Your task to perform on an android device: Open privacy settings Image 0: 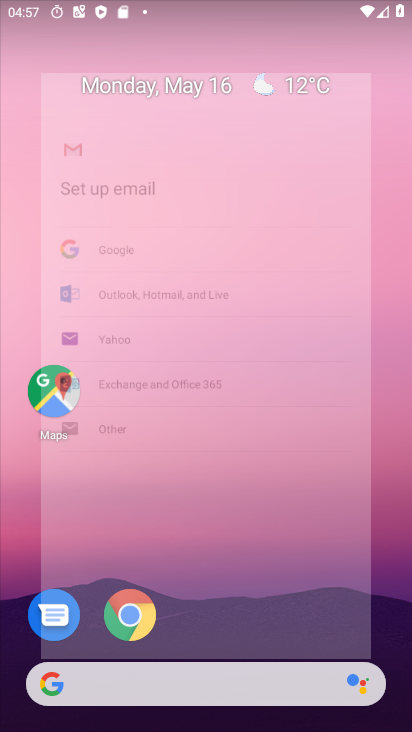
Step 0: drag from (308, 627) to (102, 87)
Your task to perform on an android device: Open privacy settings Image 1: 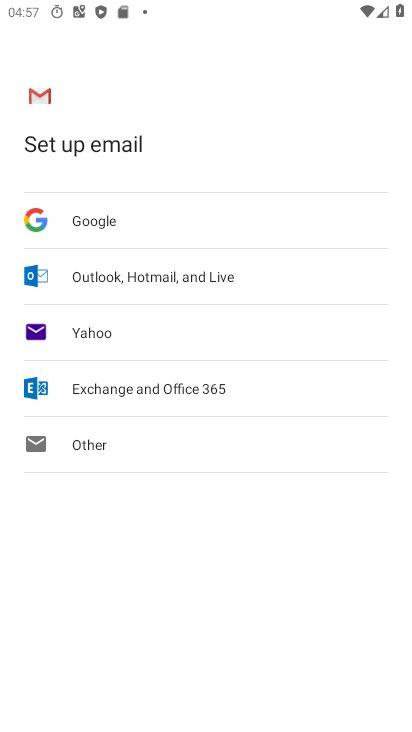
Step 1: press back button
Your task to perform on an android device: Open privacy settings Image 2: 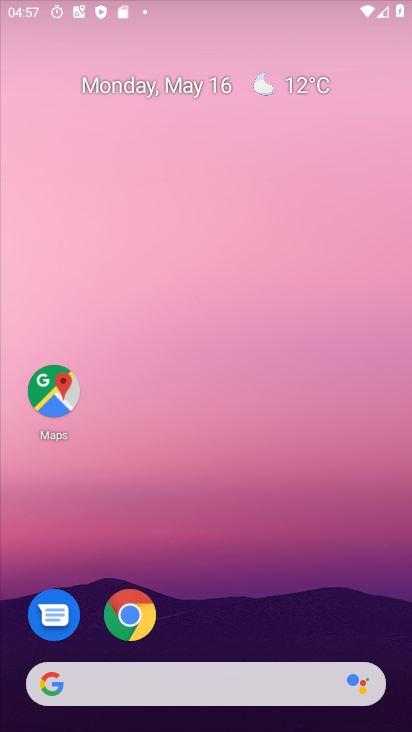
Step 2: drag from (330, 617) to (199, 88)
Your task to perform on an android device: Open privacy settings Image 3: 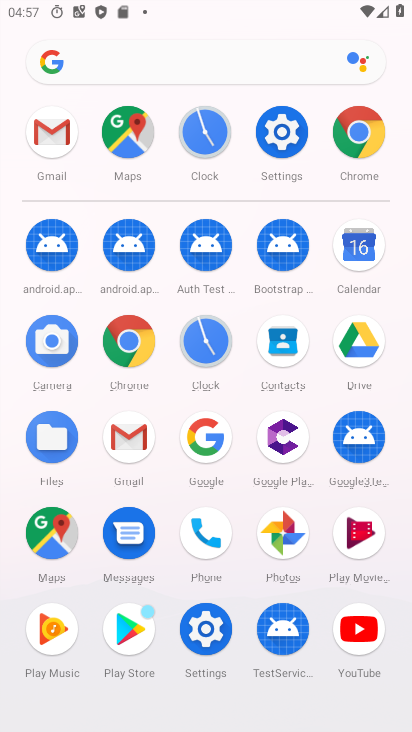
Step 3: click (277, 136)
Your task to perform on an android device: Open privacy settings Image 4: 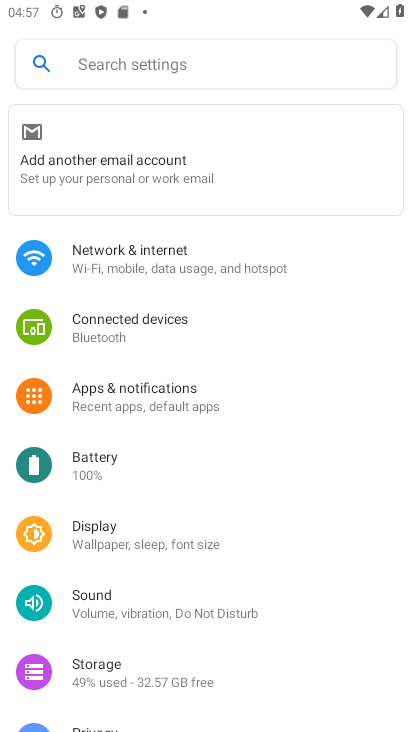
Step 4: drag from (168, 394) to (148, 121)
Your task to perform on an android device: Open privacy settings Image 5: 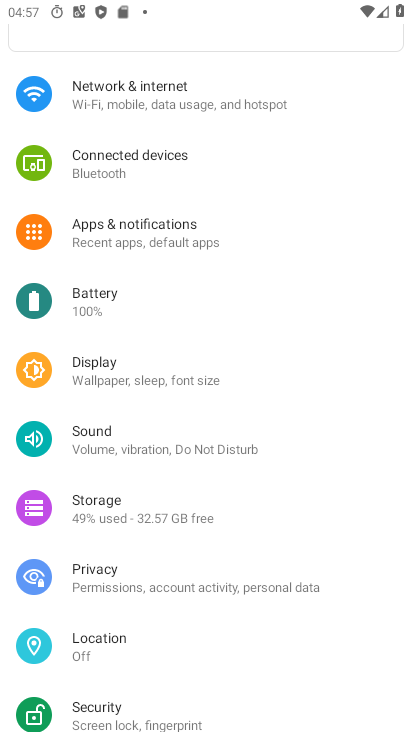
Step 5: click (129, 571)
Your task to perform on an android device: Open privacy settings Image 6: 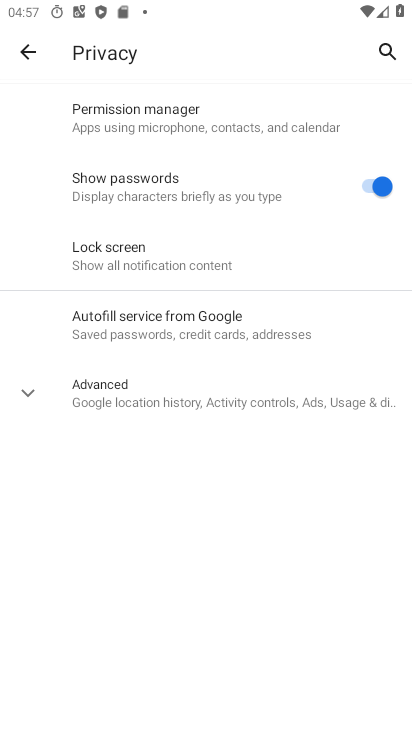
Step 6: task complete